Your task to perform on an android device: Open ESPN.com Image 0: 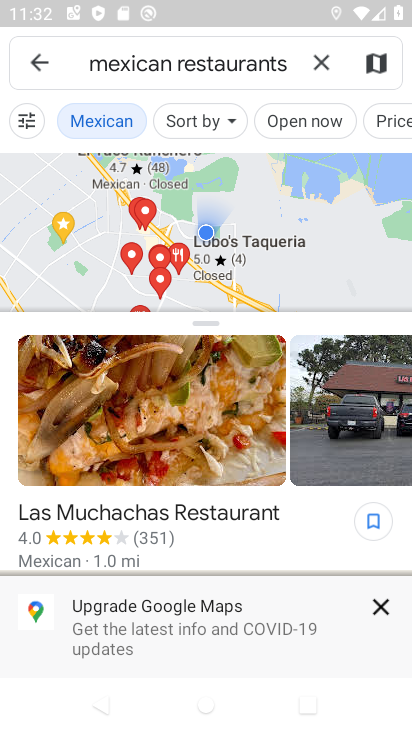
Step 0: press home button
Your task to perform on an android device: Open ESPN.com Image 1: 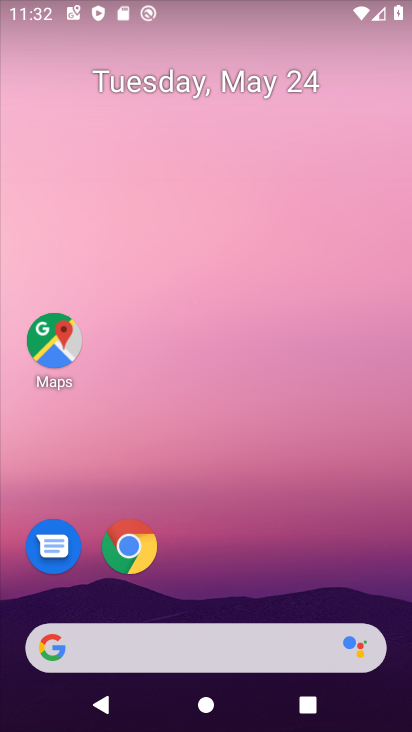
Step 1: click (125, 540)
Your task to perform on an android device: Open ESPN.com Image 2: 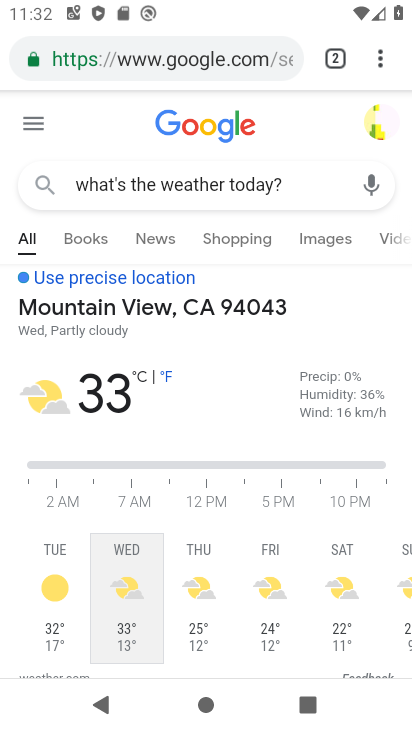
Step 2: click (235, 61)
Your task to perform on an android device: Open ESPN.com Image 3: 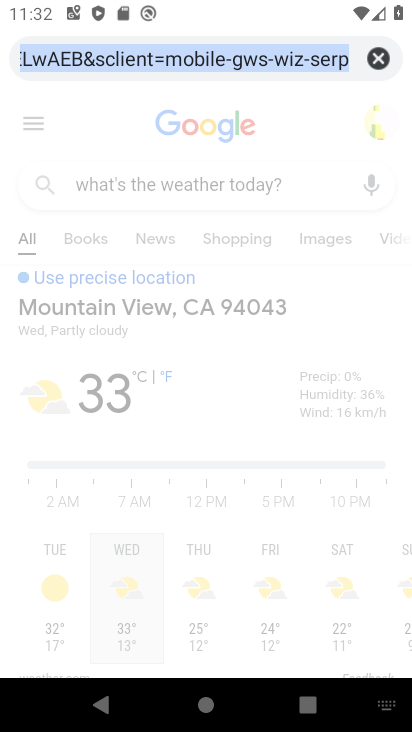
Step 3: type "espn.com"
Your task to perform on an android device: Open ESPN.com Image 4: 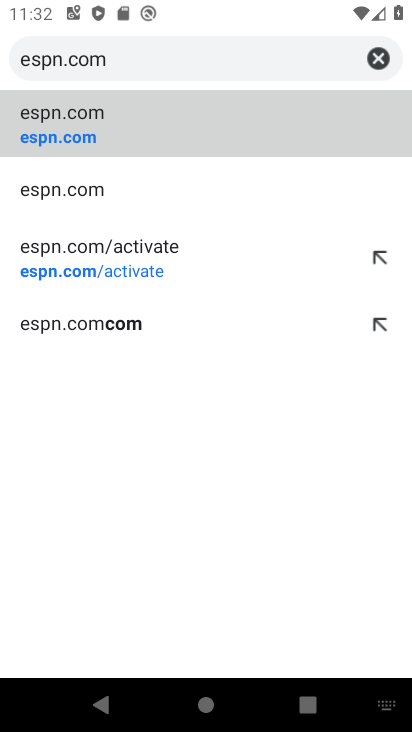
Step 4: click (68, 142)
Your task to perform on an android device: Open ESPN.com Image 5: 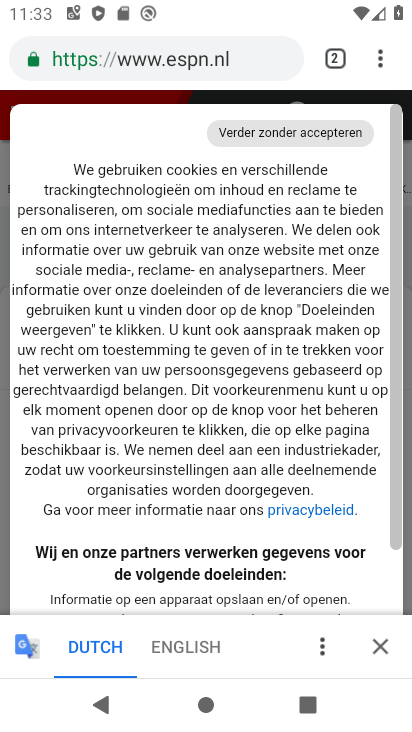
Step 5: task complete